Your task to perform on an android device: turn vacation reply on in the gmail app Image 0: 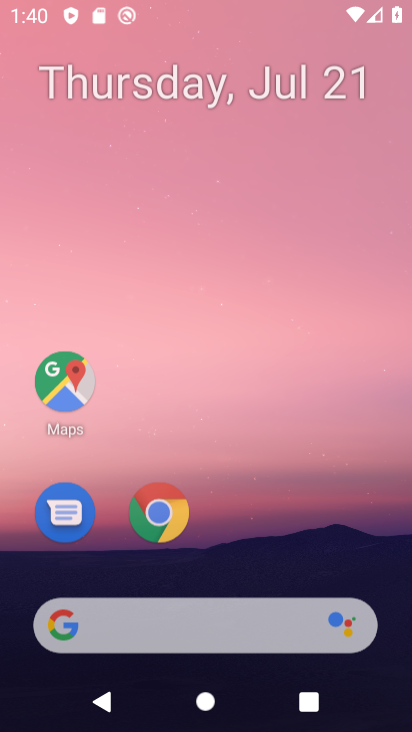
Step 0: click (190, 639)
Your task to perform on an android device: turn vacation reply on in the gmail app Image 1: 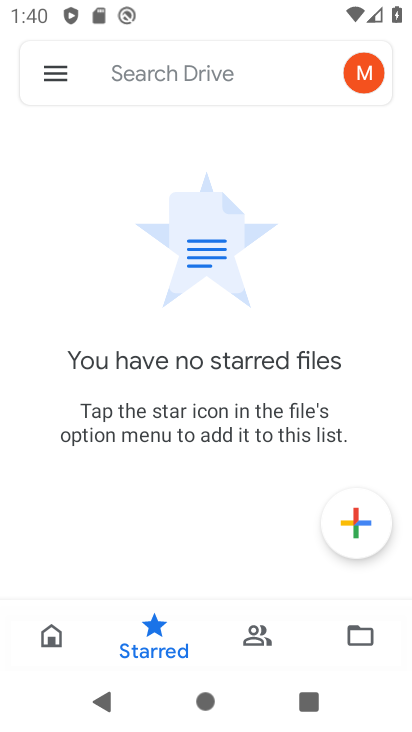
Step 1: click (230, 67)
Your task to perform on an android device: turn vacation reply on in the gmail app Image 2: 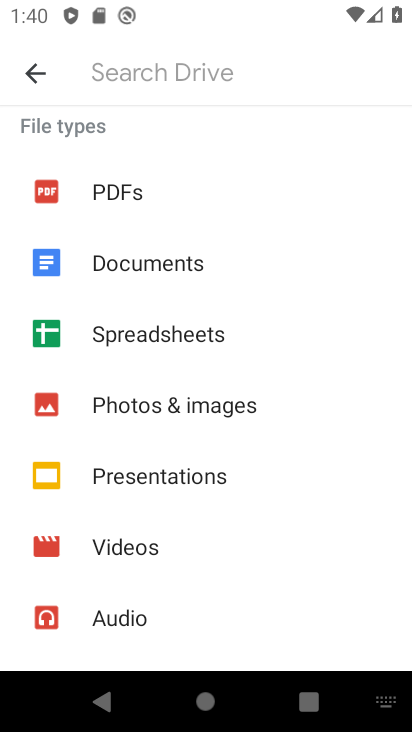
Step 2: click (30, 70)
Your task to perform on an android device: turn vacation reply on in the gmail app Image 3: 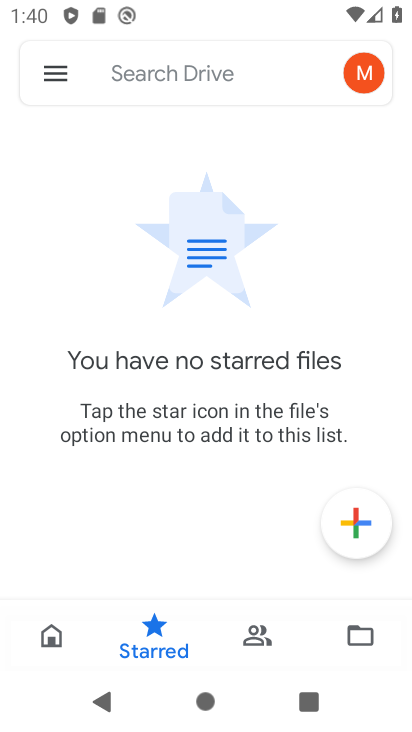
Step 3: press home button
Your task to perform on an android device: turn vacation reply on in the gmail app Image 4: 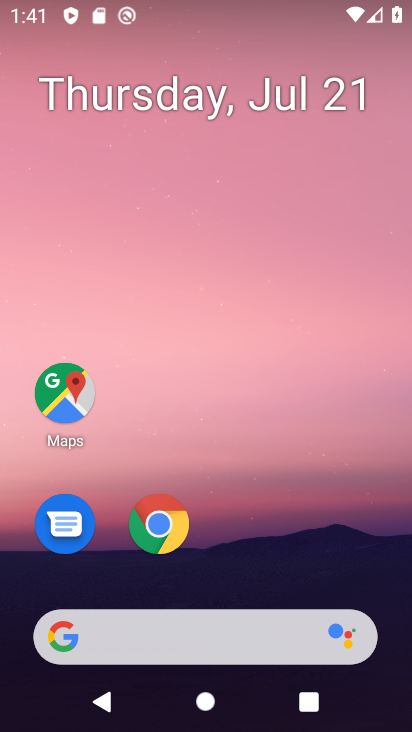
Step 4: drag from (287, 559) to (314, 56)
Your task to perform on an android device: turn vacation reply on in the gmail app Image 5: 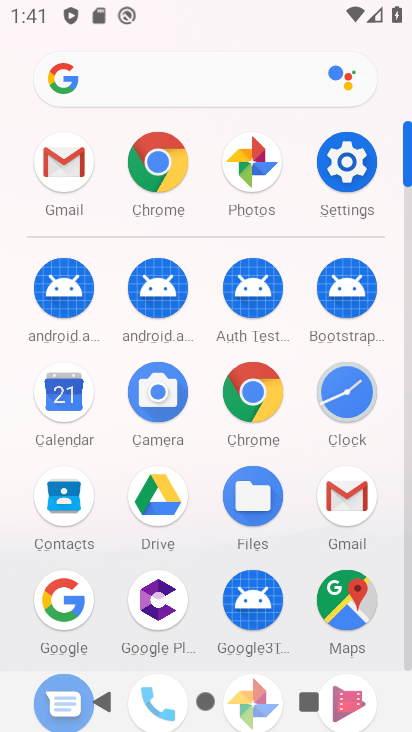
Step 5: click (355, 492)
Your task to perform on an android device: turn vacation reply on in the gmail app Image 6: 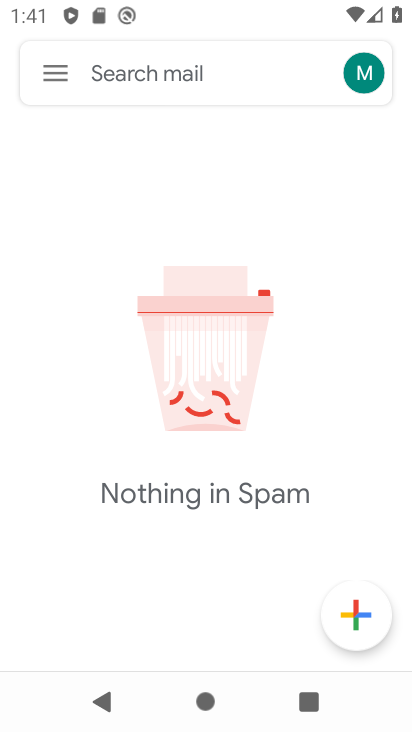
Step 6: click (56, 72)
Your task to perform on an android device: turn vacation reply on in the gmail app Image 7: 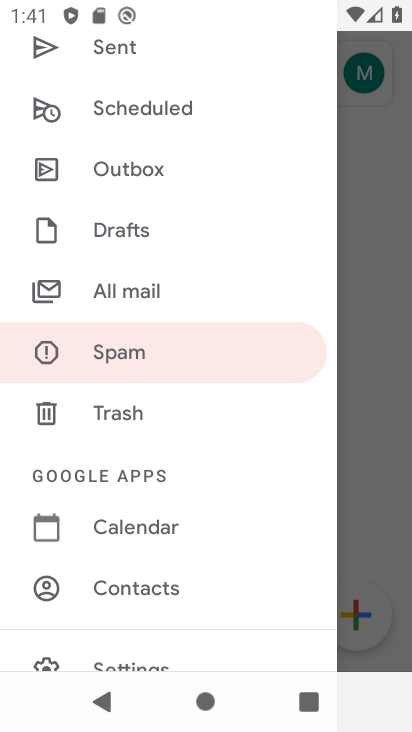
Step 7: drag from (148, 529) to (181, 346)
Your task to perform on an android device: turn vacation reply on in the gmail app Image 8: 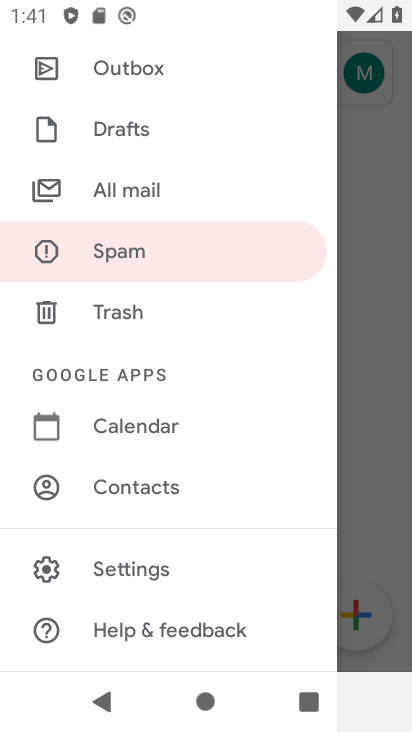
Step 8: click (141, 569)
Your task to perform on an android device: turn vacation reply on in the gmail app Image 9: 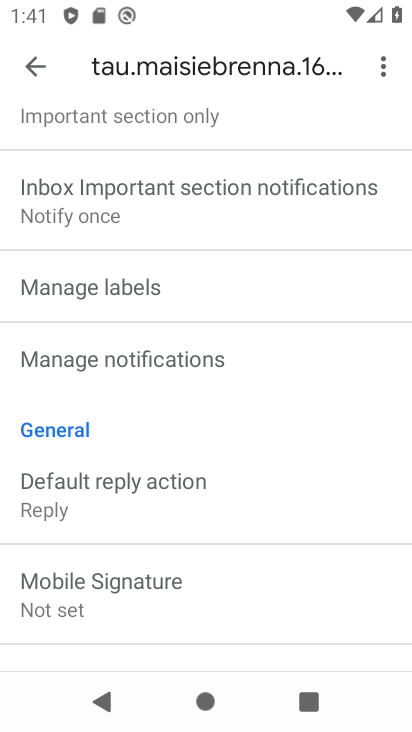
Step 9: drag from (224, 516) to (247, 156)
Your task to perform on an android device: turn vacation reply on in the gmail app Image 10: 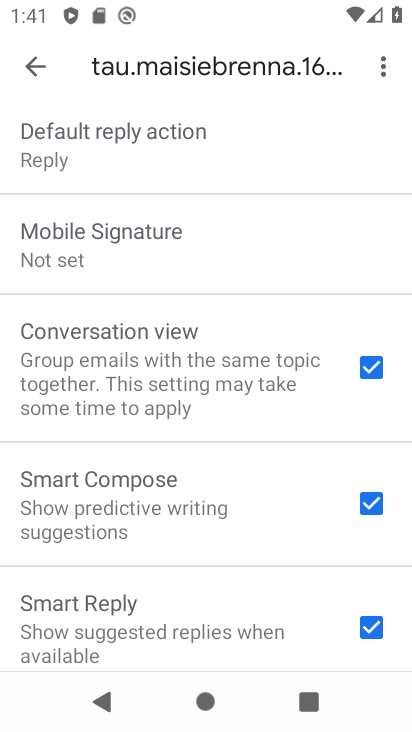
Step 10: drag from (241, 490) to (259, 253)
Your task to perform on an android device: turn vacation reply on in the gmail app Image 11: 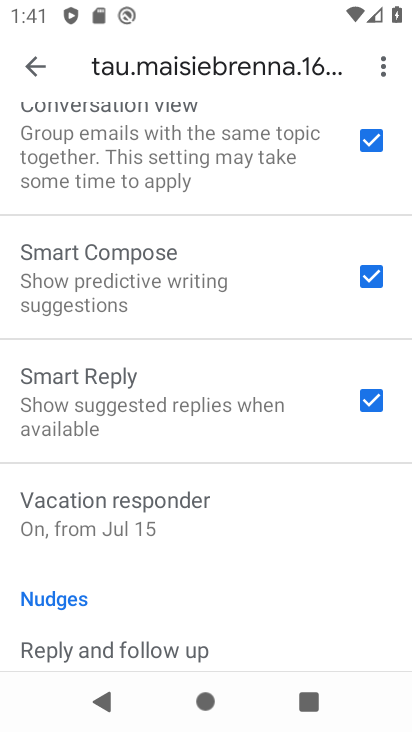
Step 11: click (231, 507)
Your task to perform on an android device: turn vacation reply on in the gmail app Image 12: 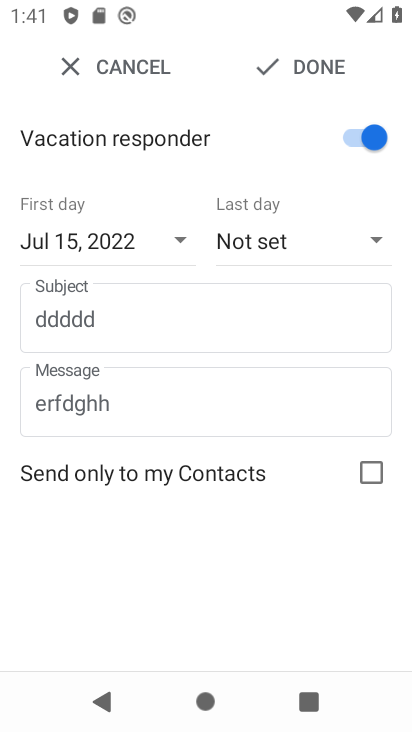
Step 12: task complete